Your task to perform on an android device: Open accessibility settings Image 0: 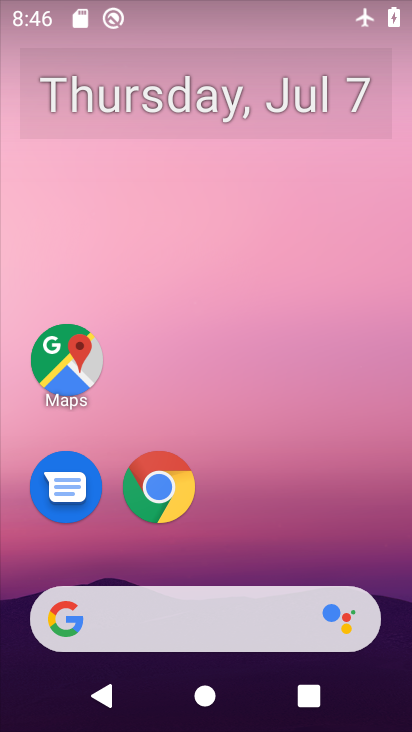
Step 0: drag from (377, 538) to (381, 140)
Your task to perform on an android device: Open accessibility settings Image 1: 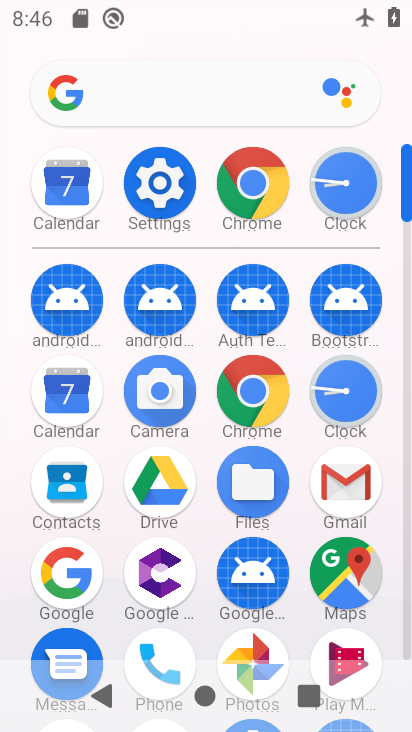
Step 1: click (177, 190)
Your task to perform on an android device: Open accessibility settings Image 2: 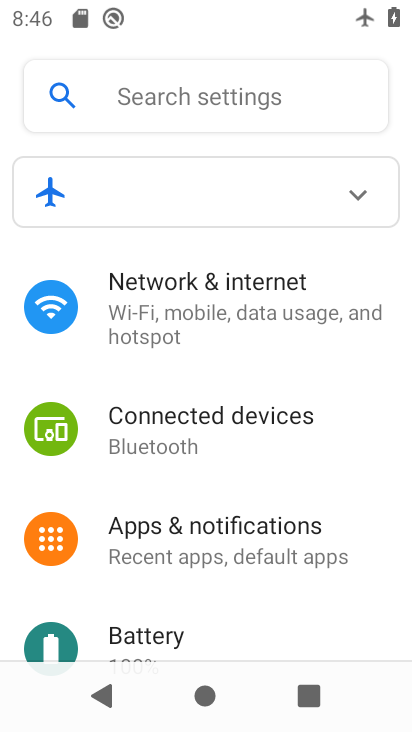
Step 2: drag from (355, 532) to (362, 393)
Your task to perform on an android device: Open accessibility settings Image 3: 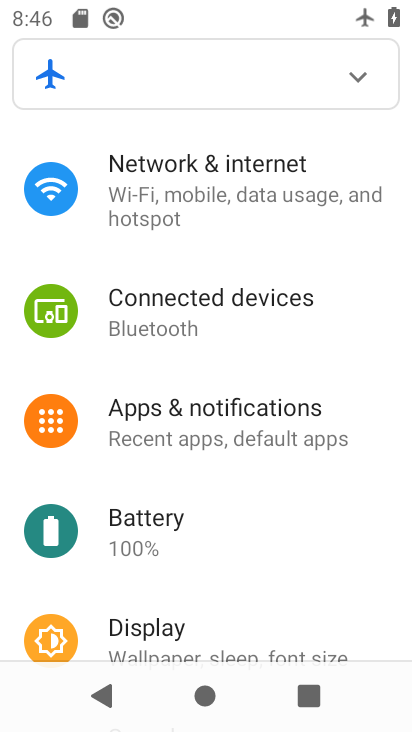
Step 3: drag from (372, 543) to (387, 340)
Your task to perform on an android device: Open accessibility settings Image 4: 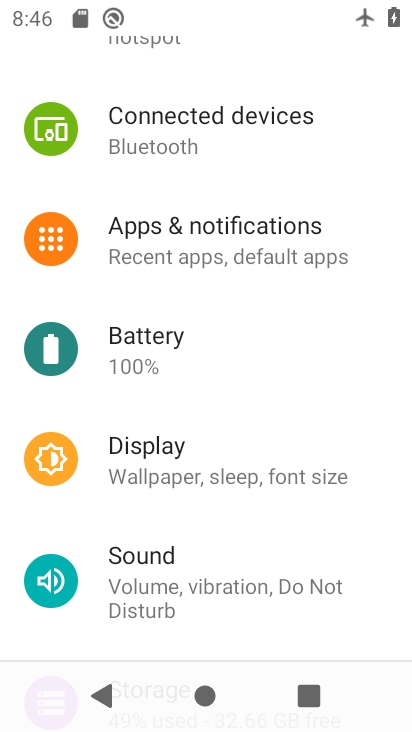
Step 4: drag from (376, 536) to (367, 280)
Your task to perform on an android device: Open accessibility settings Image 5: 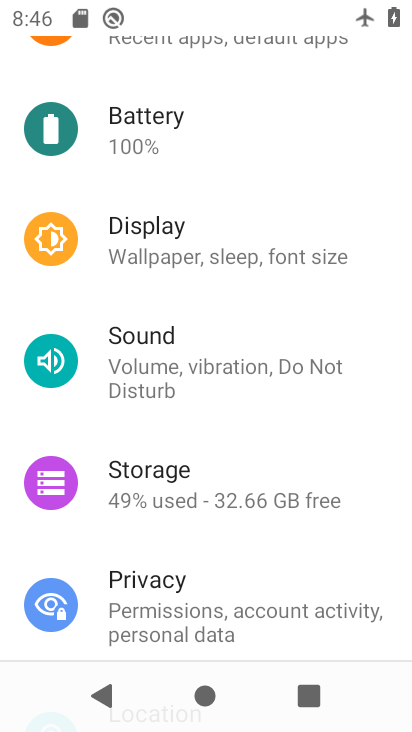
Step 5: drag from (370, 537) to (365, 401)
Your task to perform on an android device: Open accessibility settings Image 6: 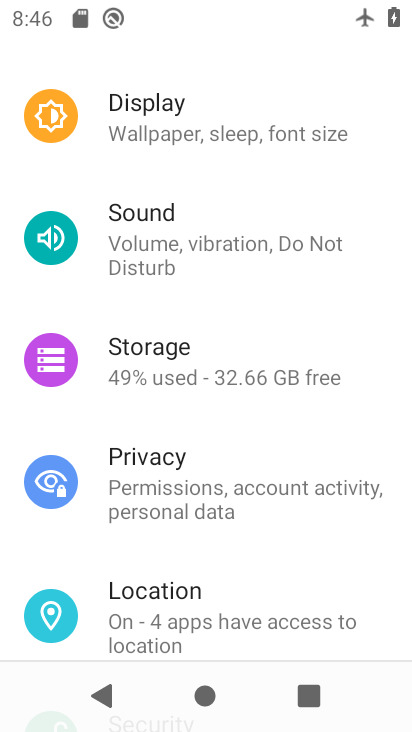
Step 6: drag from (368, 563) to (366, 429)
Your task to perform on an android device: Open accessibility settings Image 7: 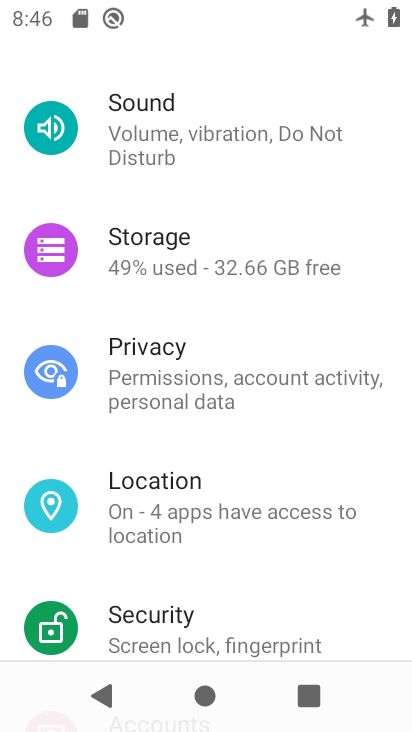
Step 7: drag from (336, 597) to (330, 467)
Your task to perform on an android device: Open accessibility settings Image 8: 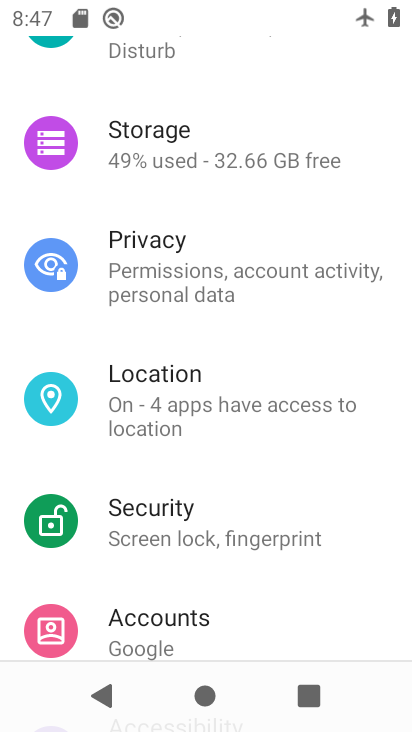
Step 8: drag from (382, 591) to (384, 486)
Your task to perform on an android device: Open accessibility settings Image 9: 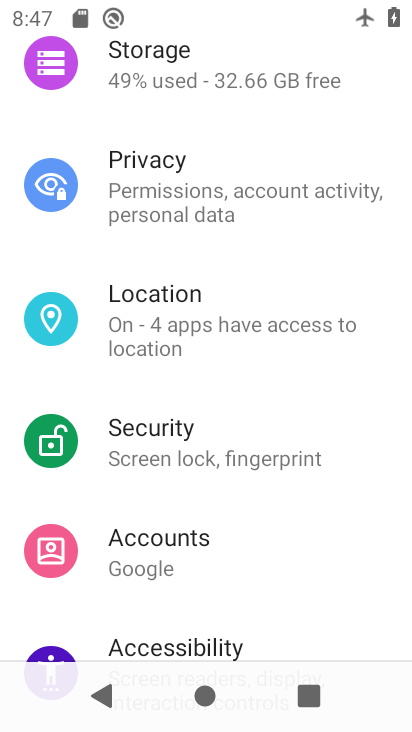
Step 9: drag from (350, 571) to (358, 411)
Your task to perform on an android device: Open accessibility settings Image 10: 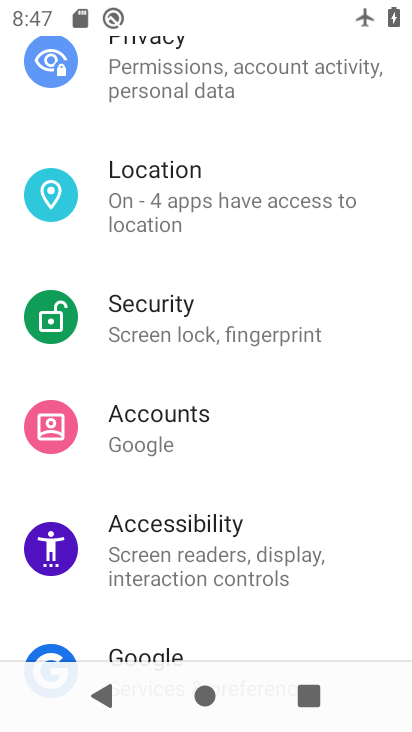
Step 10: click (251, 552)
Your task to perform on an android device: Open accessibility settings Image 11: 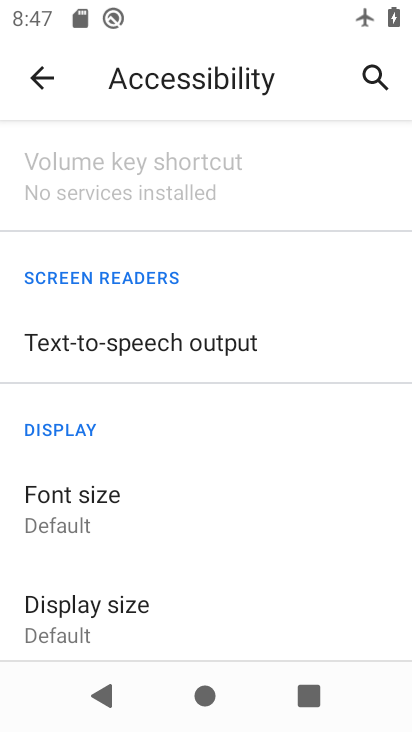
Step 11: task complete